Your task to perform on an android device: Search for sushi restaurants on Maps Image 0: 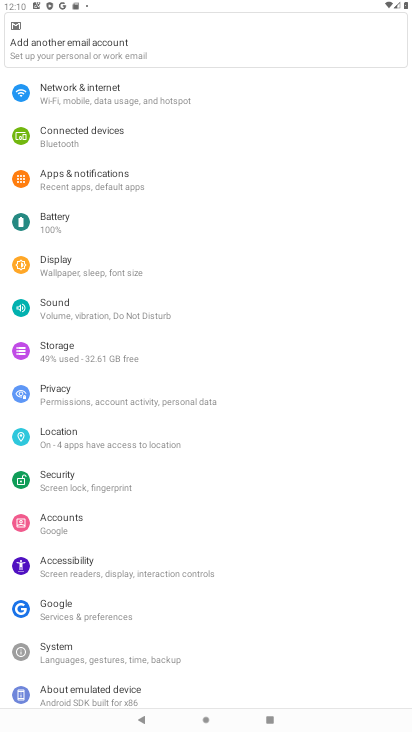
Step 0: press home button
Your task to perform on an android device: Search for sushi restaurants on Maps Image 1: 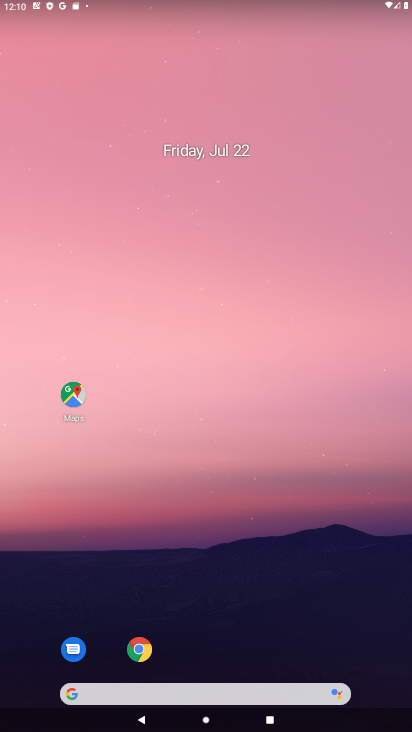
Step 1: drag from (233, 637) to (233, 203)
Your task to perform on an android device: Search for sushi restaurants on Maps Image 2: 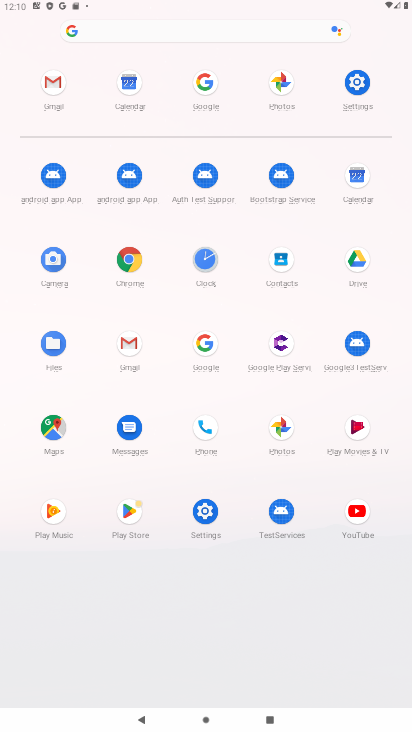
Step 2: click (51, 423)
Your task to perform on an android device: Search for sushi restaurants on Maps Image 3: 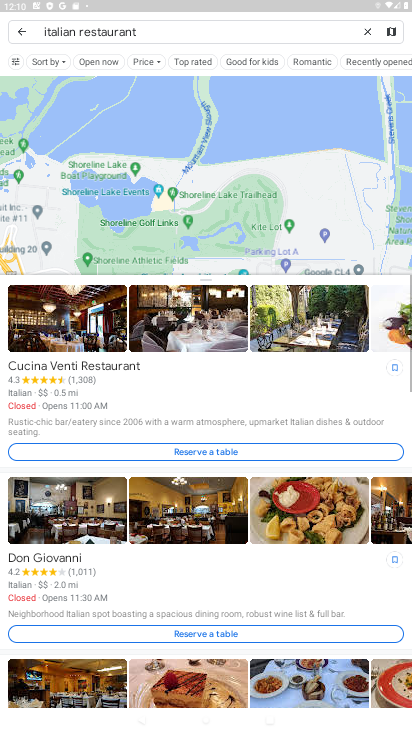
Step 3: task complete